Your task to perform on an android device: Search for Mexican restaurants on Maps Image 0: 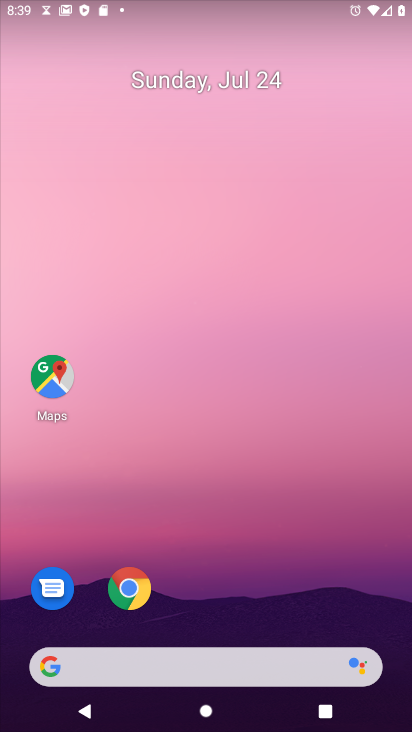
Step 0: press home button
Your task to perform on an android device: Search for Mexican restaurants on Maps Image 1: 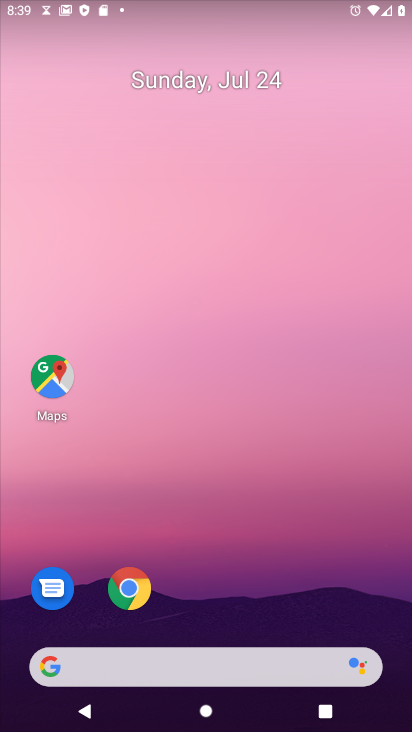
Step 1: click (47, 371)
Your task to perform on an android device: Search for Mexican restaurants on Maps Image 2: 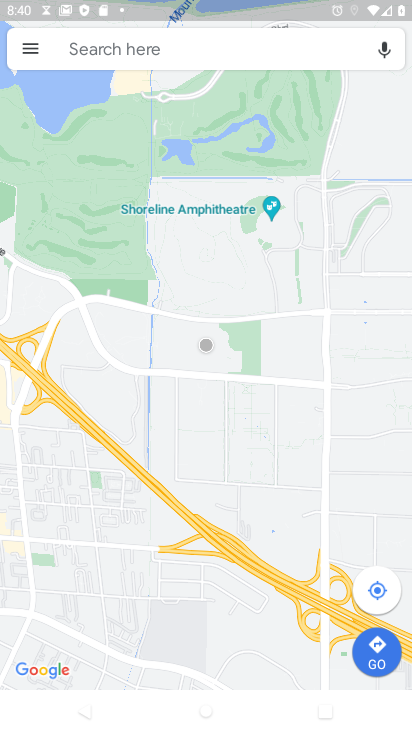
Step 2: click (107, 46)
Your task to perform on an android device: Search for Mexican restaurants on Maps Image 3: 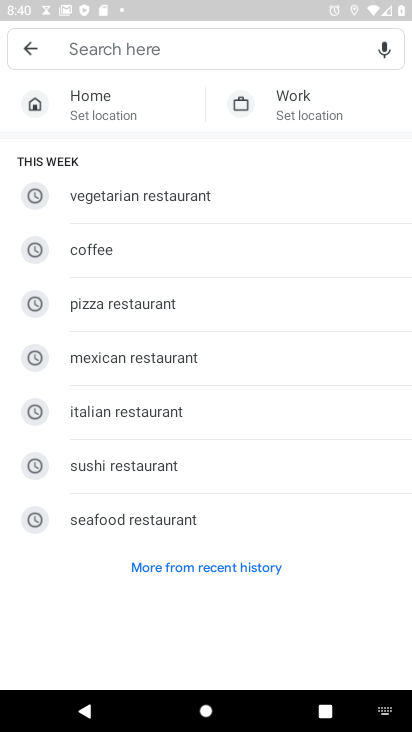
Step 3: click (97, 353)
Your task to perform on an android device: Search for Mexican restaurants on Maps Image 4: 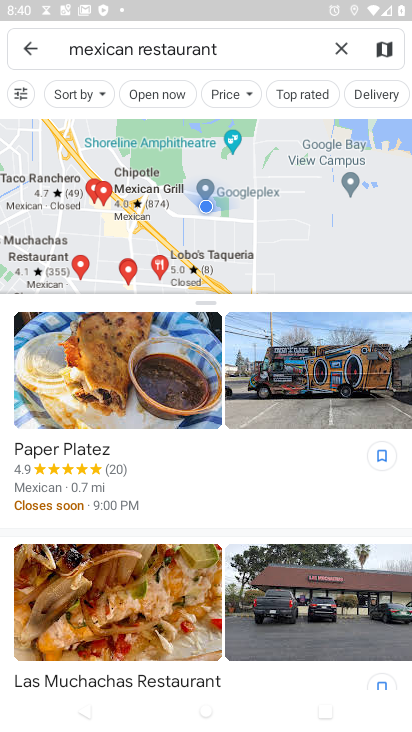
Step 4: task complete